Your task to perform on an android device: search for starred emails in the gmail app Image 0: 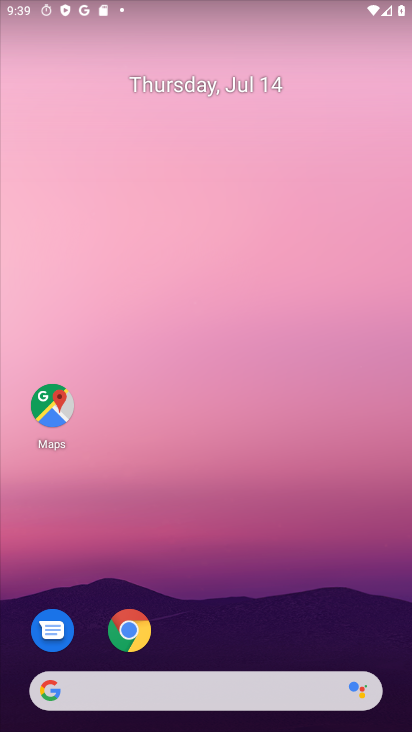
Step 0: drag from (129, 291) to (155, 221)
Your task to perform on an android device: search for starred emails in the gmail app Image 1: 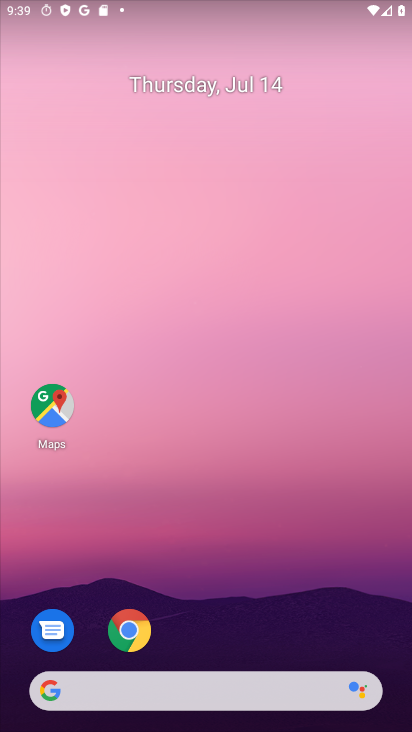
Step 1: drag from (26, 675) to (178, 14)
Your task to perform on an android device: search for starred emails in the gmail app Image 2: 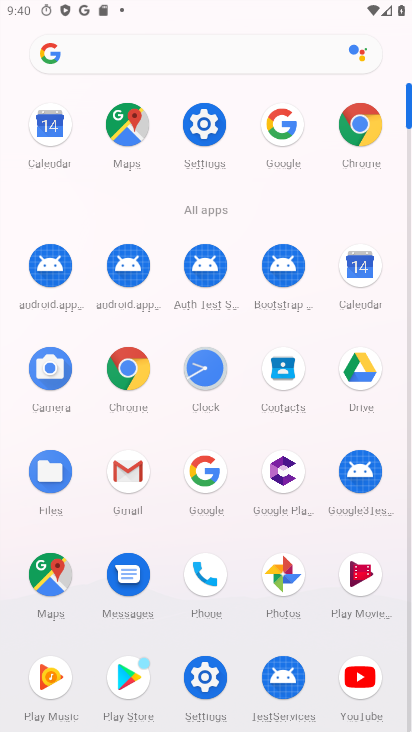
Step 2: click (139, 489)
Your task to perform on an android device: search for starred emails in the gmail app Image 3: 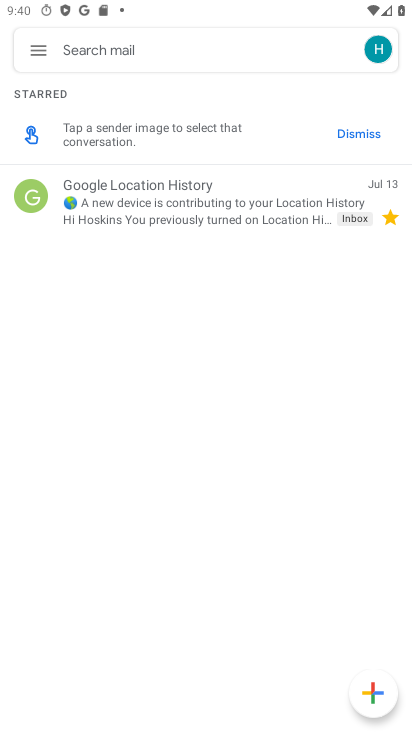
Step 3: task complete